Your task to perform on an android device: toggle location history Image 0: 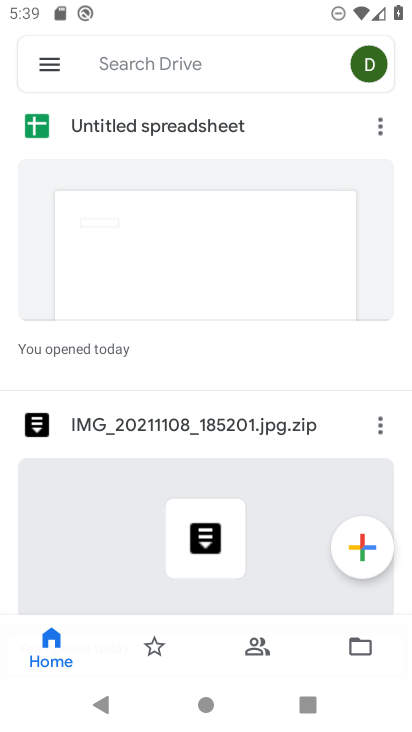
Step 0: press home button
Your task to perform on an android device: toggle location history Image 1: 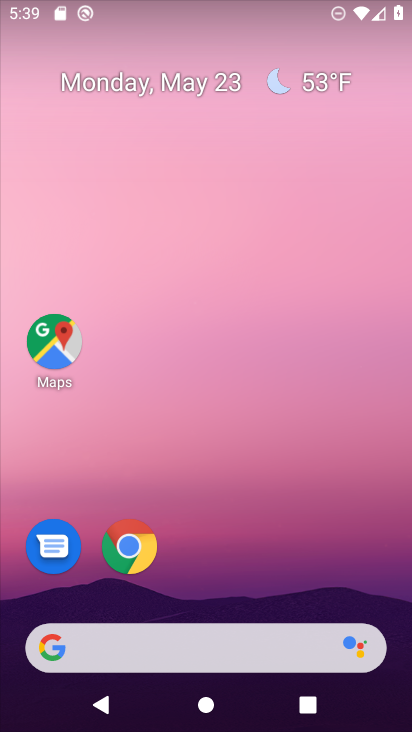
Step 1: drag from (277, 556) to (243, 37)
Your task to perform on an android device: toggle location history Image 2: 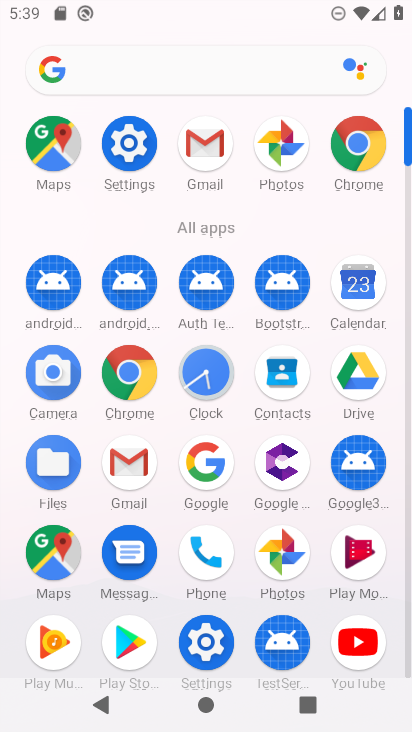
Step 2: click (131, 141)
Your task to perform on an android device: toggle location history Image 3: 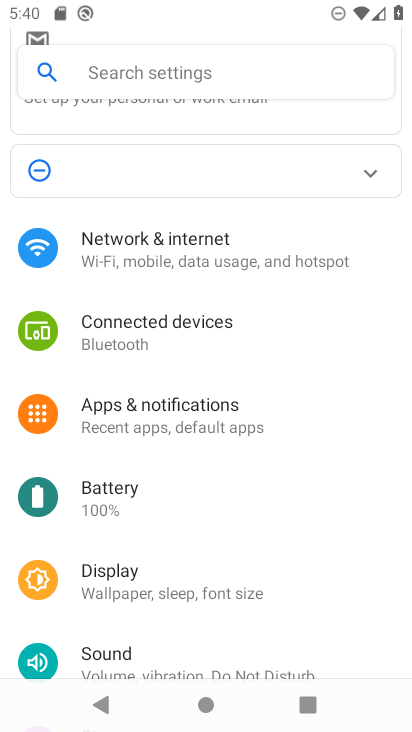
Step 3: drag from (203, 597) to (225, 295)
Your task to perform on an android device: toggle location history Image 4: 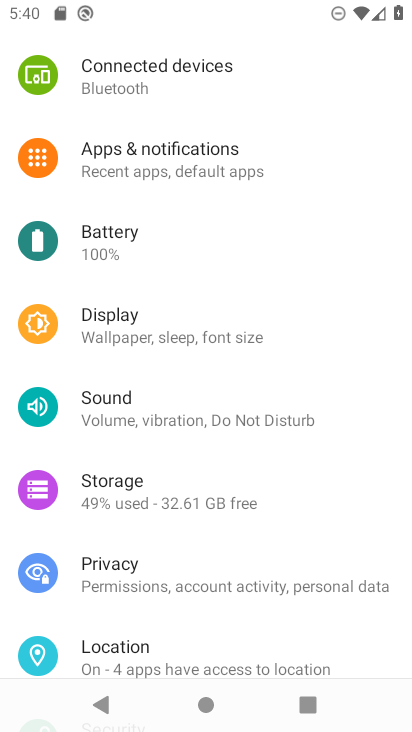
Step 4: click (172, 646)
Your task to perform on an android device: toggle location history Image 5: 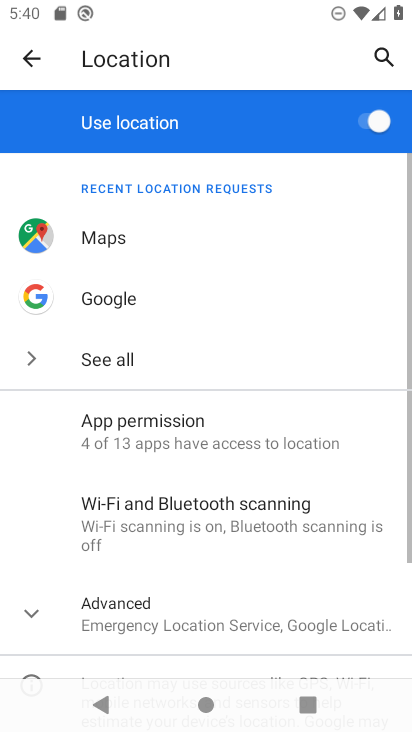
Step 5: click (217, 613)
Your task to perform on an android device: toggle location history Image 6: 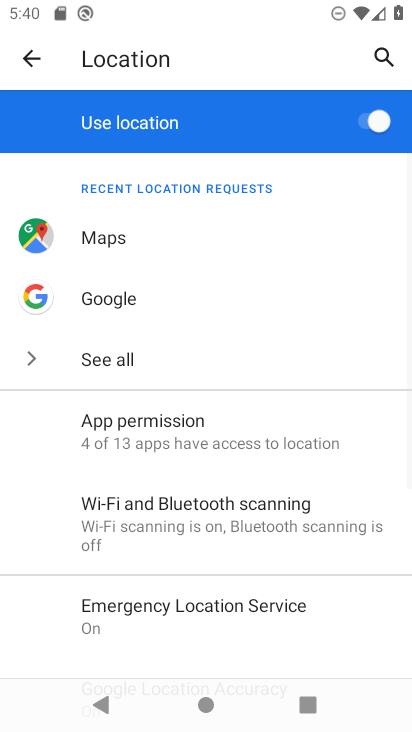
Step 6: drag from (217, 613) to (219, 290)
Your task to perform on an android device: toggle location history Image 7: 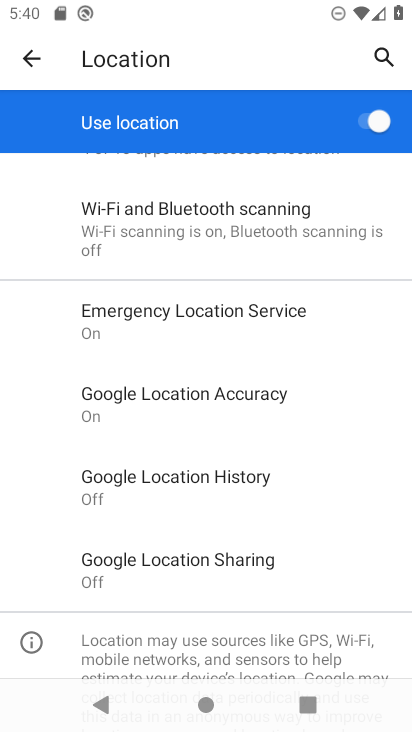
Step 7: click (201, 479)
Your task to perform on an android device: toggle location history Image 8: 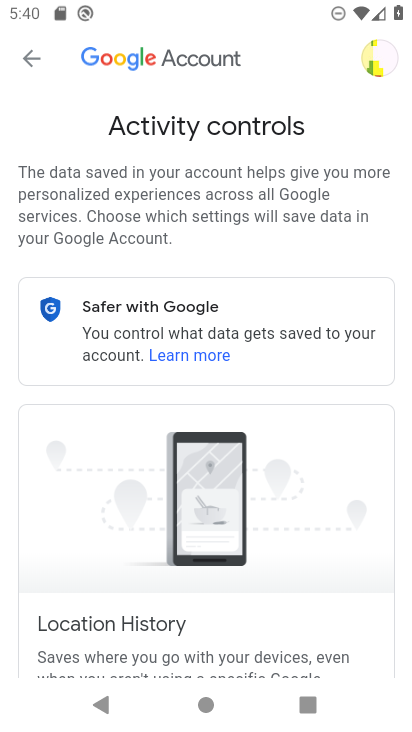
Step 8: drag from (288, 609) to (360, 201)
Your task to perform on an android device: toggle location history Image 9: 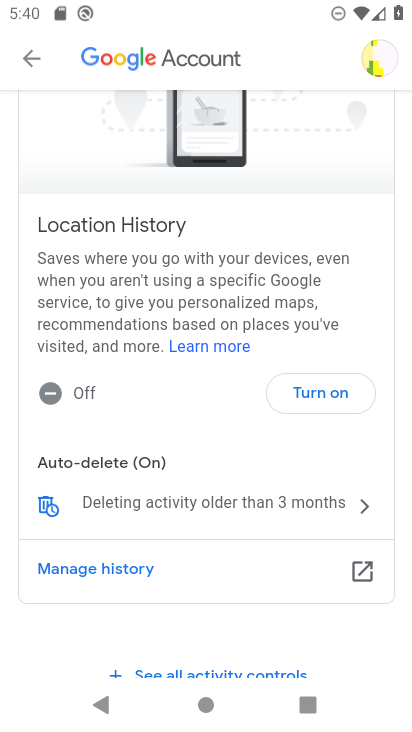
Step 9: drag from (282, 585) to (328, 262)
Your task to perform on an android device: toggle location history Image 10: 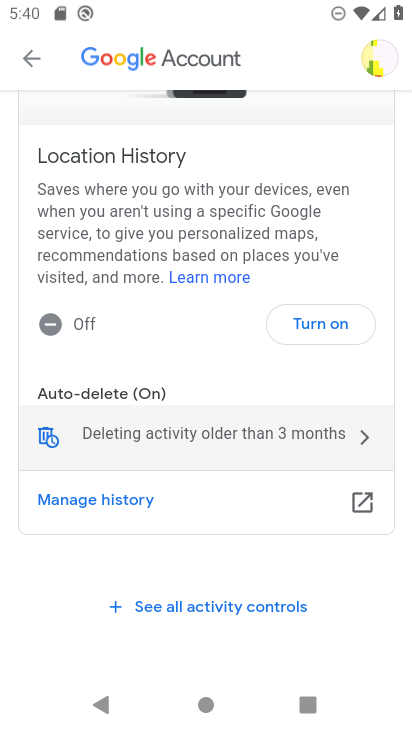
Step 10: click (300, 324)
Your task to perform on an android device: toggle location history Image 11: 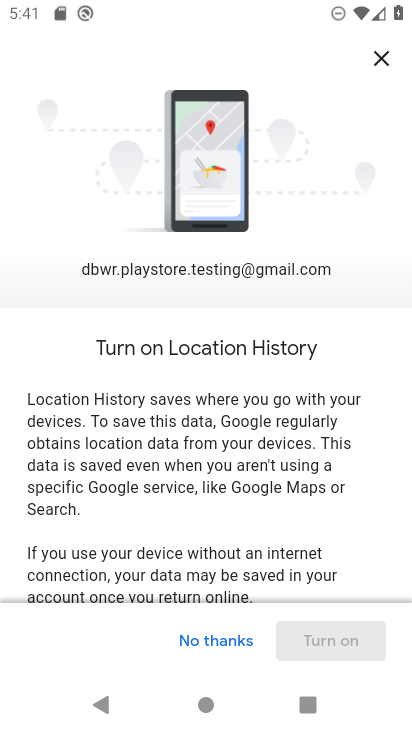
Step 11: drag from (296, 536) to (285, 140)
Your task to perform on an android device: toggle location history Image 12: 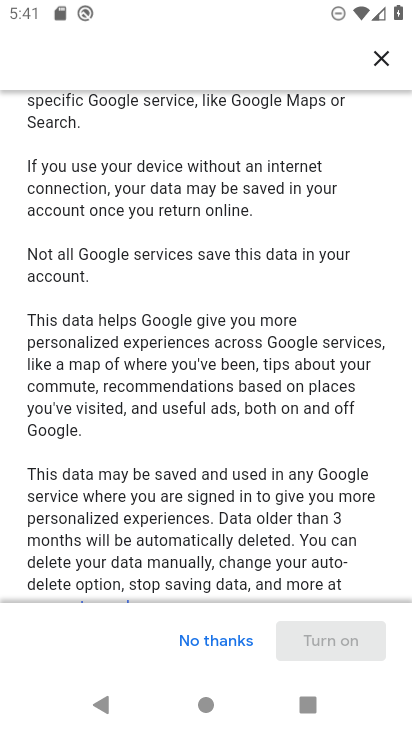
Step 12: drag from (275, 533) to (293, 89)
Your task to perform on an android device: toggle location history Image 13: 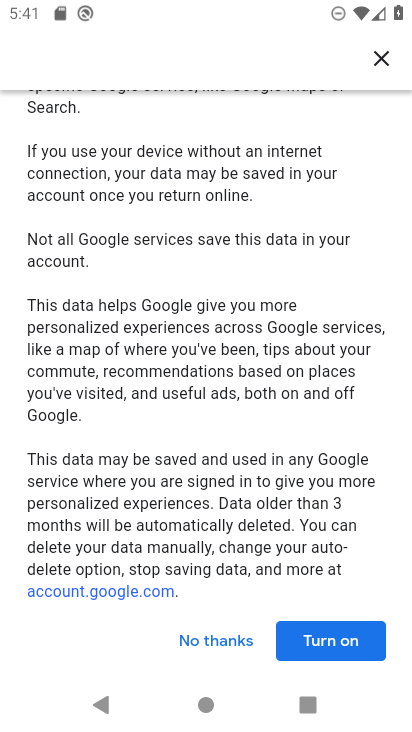
Step 13: click (344, 629)
Your task to perform on an android device: toggle location history Image 14: 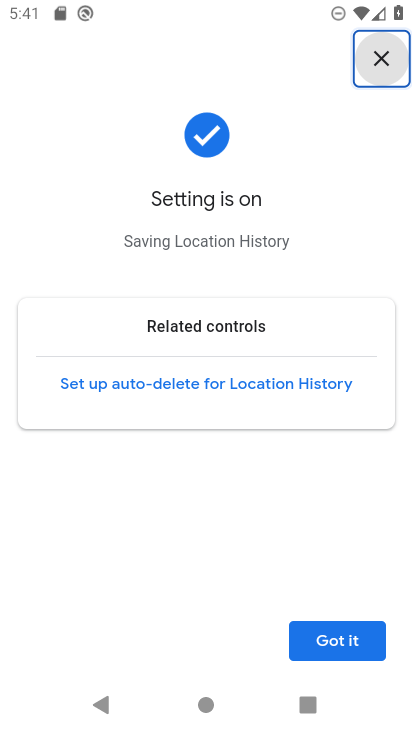
Step 14: click (335, 637)
Your task to perform on an android device: toggle location history Image 15: 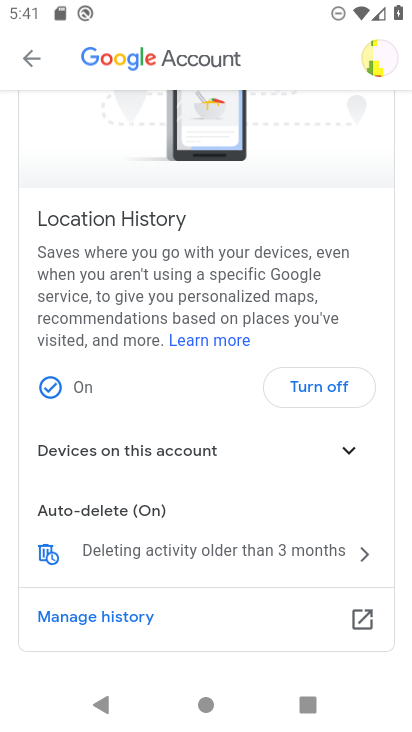
Step 15: task complete